Your task to perform on an android device: Go to Android settings Image 0: 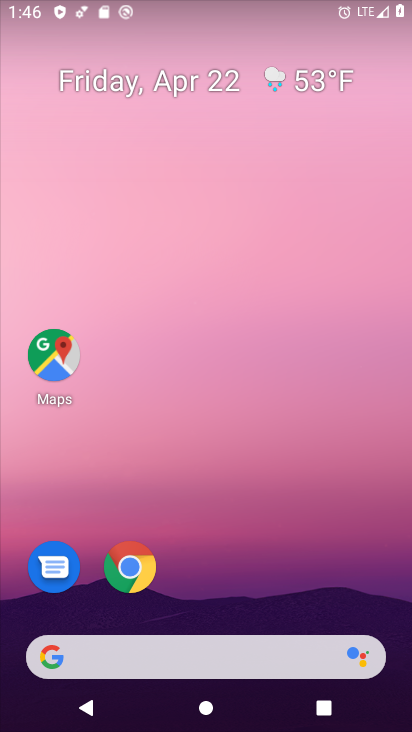
Step 0: drag from (367, 607) to (302, 309)
Your task to perform on an android device: Go to Android settings Image 1: 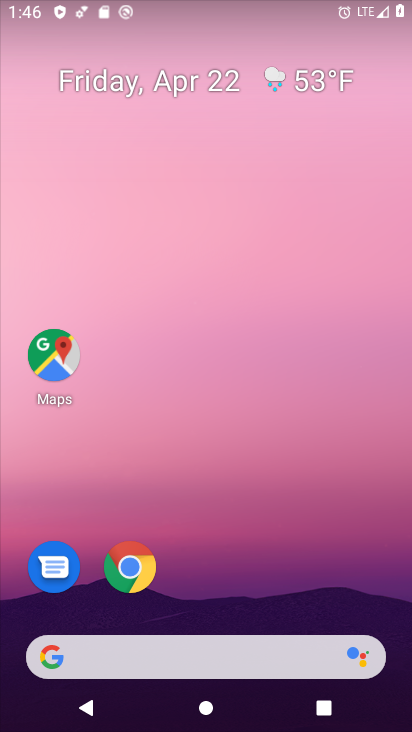
Step 1: drag from (316, 597) to (239, 159)
Your task to perform on an android device: Go to Android settings Image 2: 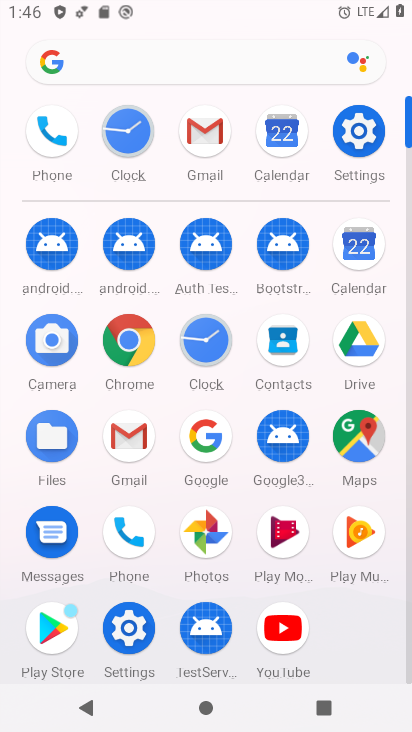
Step 2: click (129, 626)
Your task to perform on an android device: Go to Android settings Image 3: 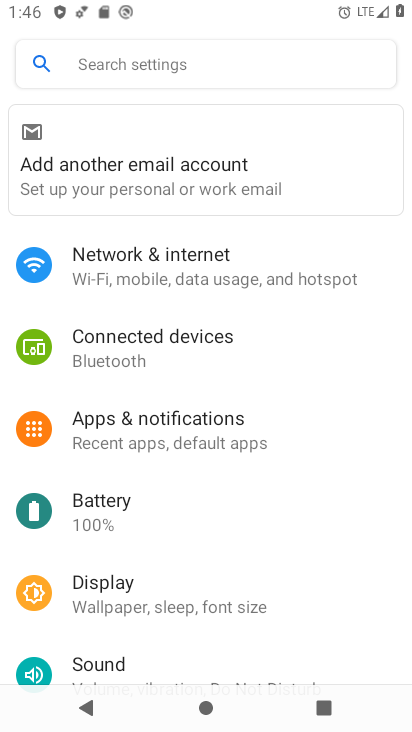
Step 3: drag from (300, 642) to (305, 245)
Your task to perform on an android device: Go to Android settings Image 4: 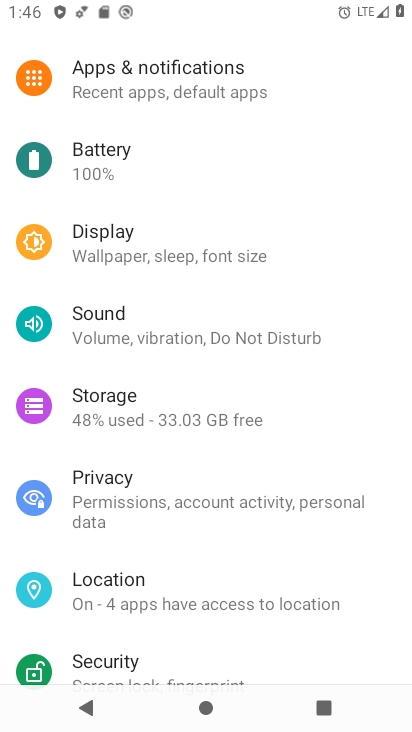
Step 4: drag from (346, 581) to (362, 102)
Your task to perform on an android device: Go to Android settings Image 5: 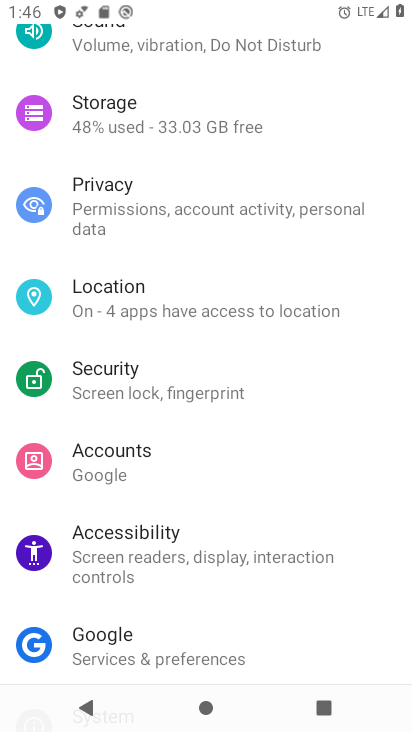
Step 5: drag from (251, 623) to (308, 144)
Your task to perform on an android device: Go to Android settings Image 6: 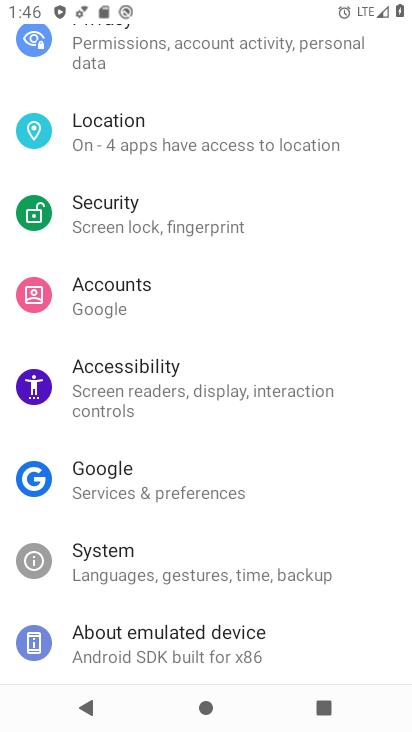
Step 6: click (138, 632)
Your task to perform on an android device: Go to Android settings Image 7: 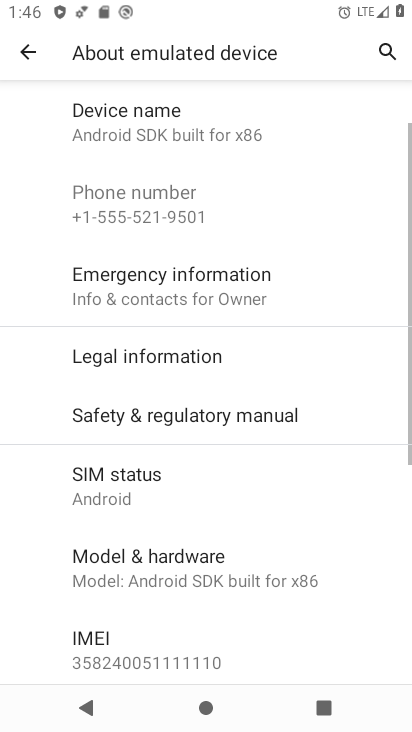
Step 7: task complete